Your task to perform on an android device: delete a single message in the gmail app Image 0: 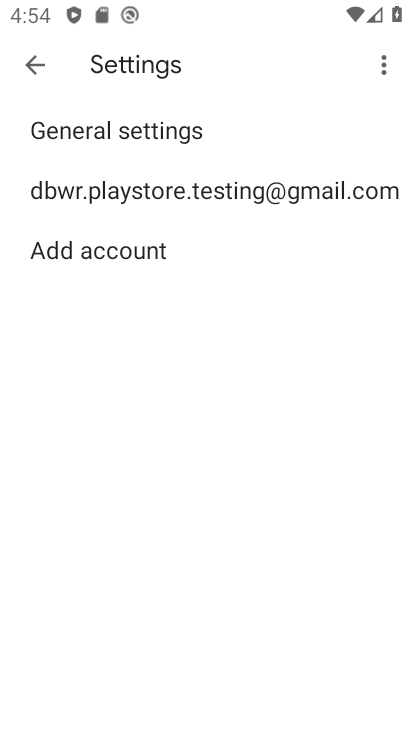
Step 0: click (24, 54)
Your task to perform on an android device: delete a single message in the gmail app Image 1: 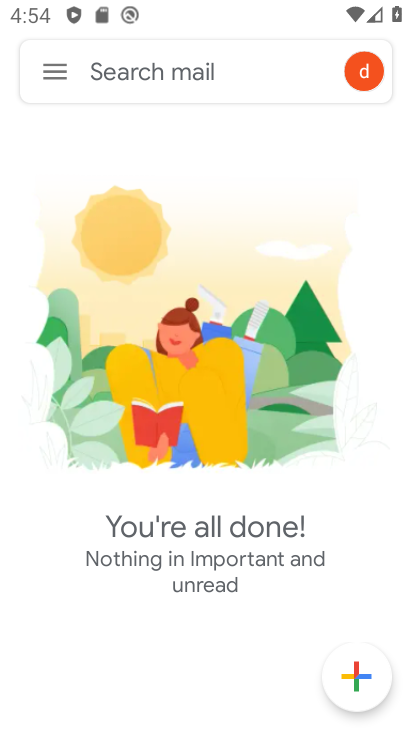
Step 1: click (52, 77)
Your task to perform on an android device: delete a single message in the gmail app Image 2: 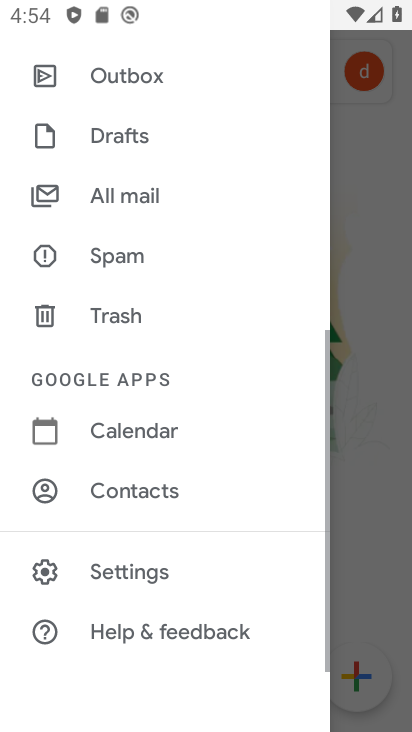
Step 2: click (120, 202)
Your task to perform on an android device: delete a single message in the gmail app Image 3: 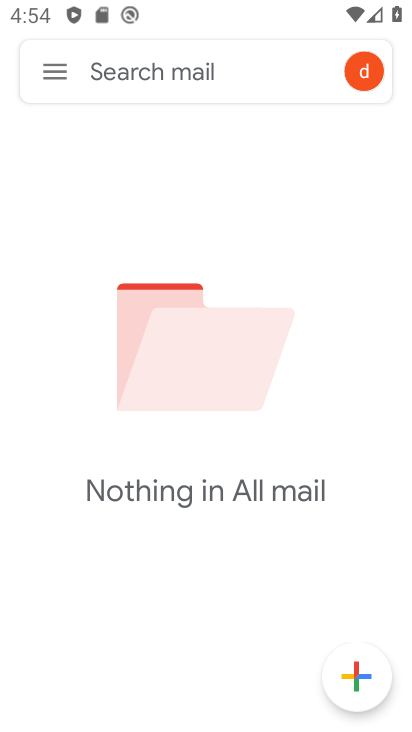
Step 3: task complete